Your task to perform on an android device: turn notification dots on Image 0: 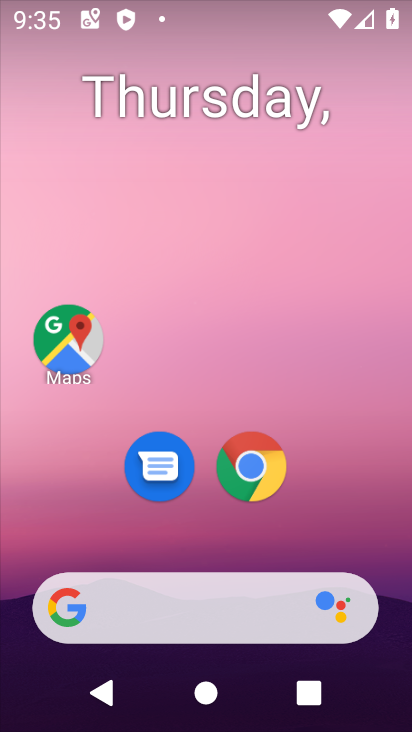
Step 0: drag from (378, 514) to (350, 75)
Your task to perform on an android device: turn notification dots on Image 1: 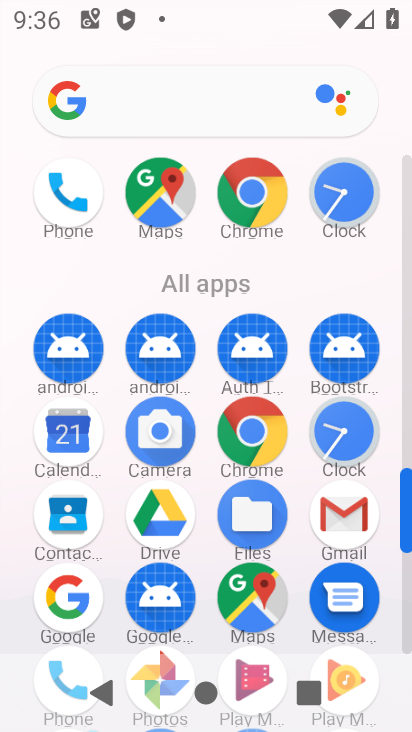
Step 1: drag from (302, 466) to (301, 266)
Your task to perform on an android device: turn notification dots on Image 2: 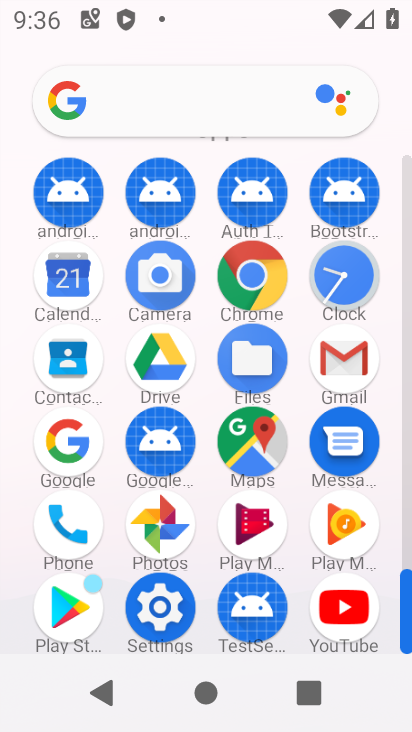
Step 2: click (158, 612)
Your task to perform on an android device: turn notification dots on Image 3: 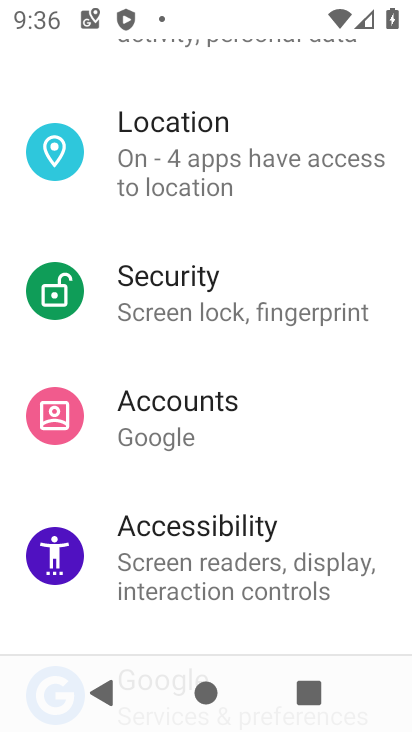
Step 3: drag from (289, 213) to (311, 514)
Your task to perform on an android device: turn notification dots on Image 4: 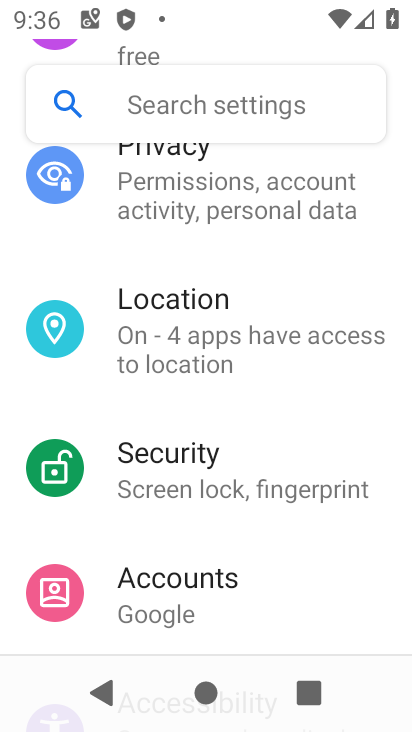
Step 4: drag from (312, 250) to (337, 571)
Your task to perform on an android device: turn notification dots on Image 5: 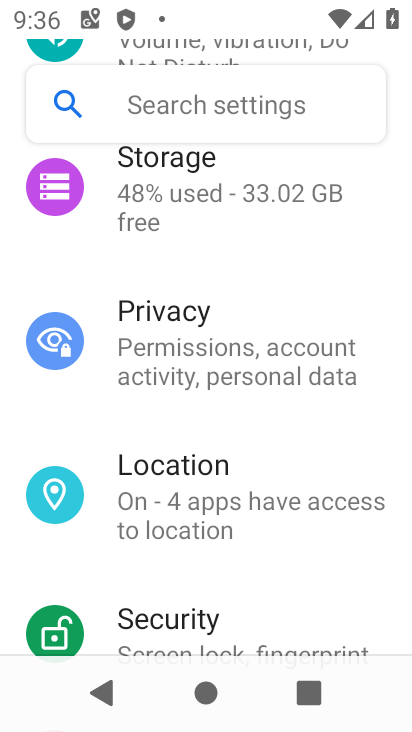
Step 5: drag from (296, 274) to (275, 597)
Your task to perform on an android device: turn notification dots on Image 6: 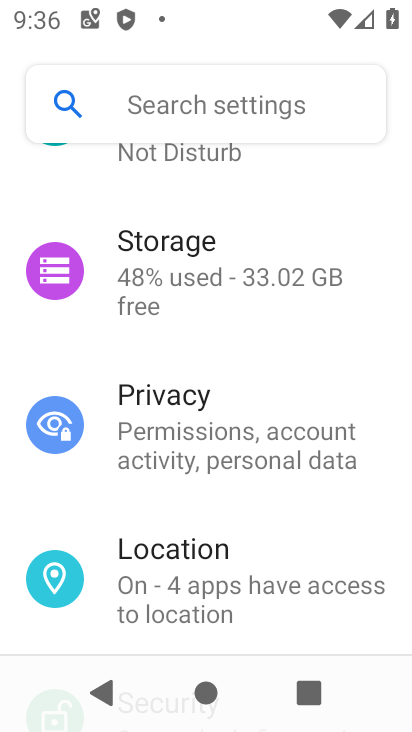
Step 6: drag from (277, 179) to (295, 493)
Your task to perform on an android device: turn notification dots on Image 7: 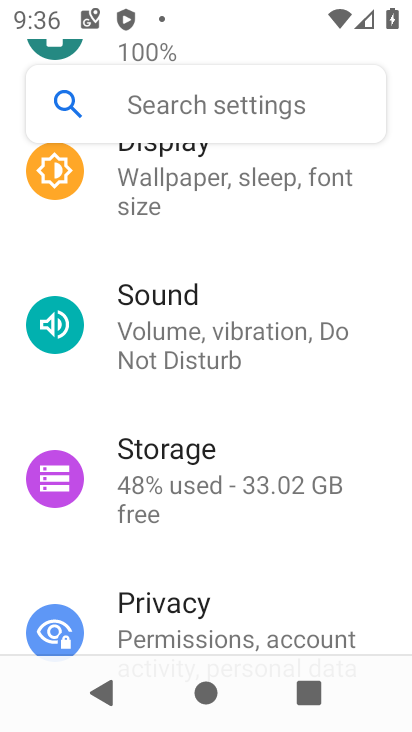
Step 7: drag from (272, 300) to (299, 575)
Your task to perform on an android device: turn notification dots on Image 8: 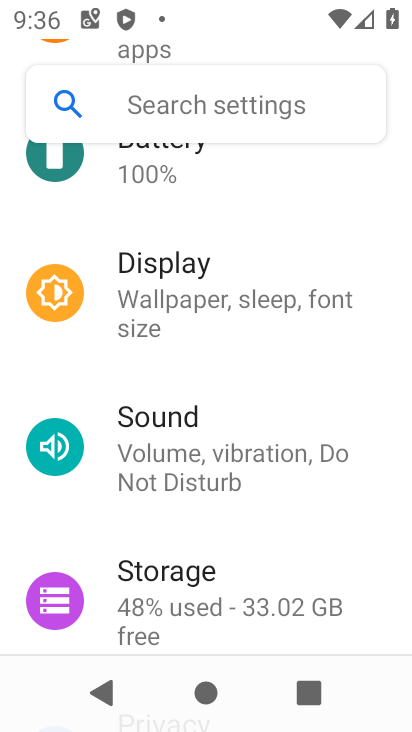
Step 8: drag from (267, 248) to (281, 547)
Your task to perform on an android device: turn notification dots on Image 9: 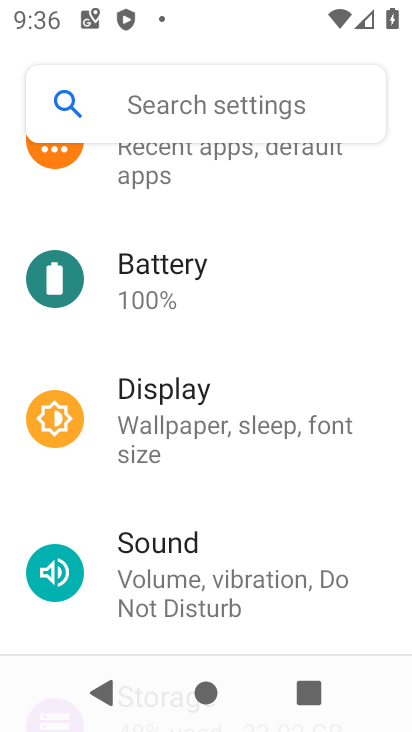
Step 9: drag from (265, 289) to (278, 552)
Your task to perform on an android device: turn notification dots on Image 10: 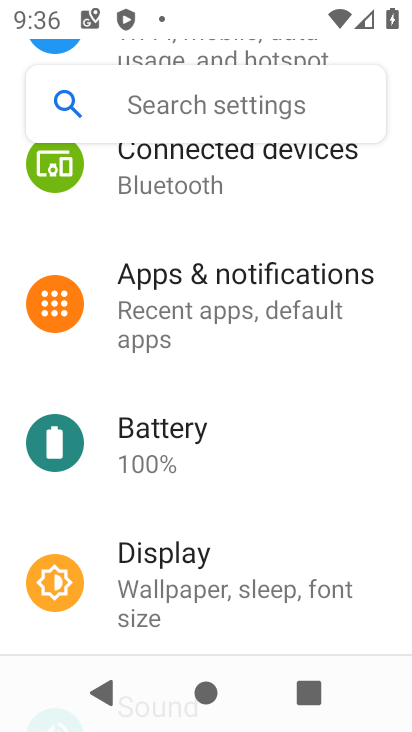
Step 10: click (247, 292)
Your task to perform on an android device: turn notification dots on Image 11: 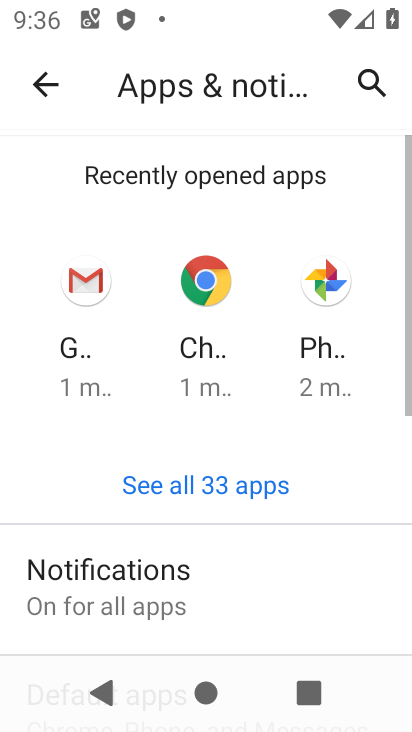
Step 11: drag from (258, 601) to (267, 222)
Your task to perform on an android device: turn notification dots on Image 12: 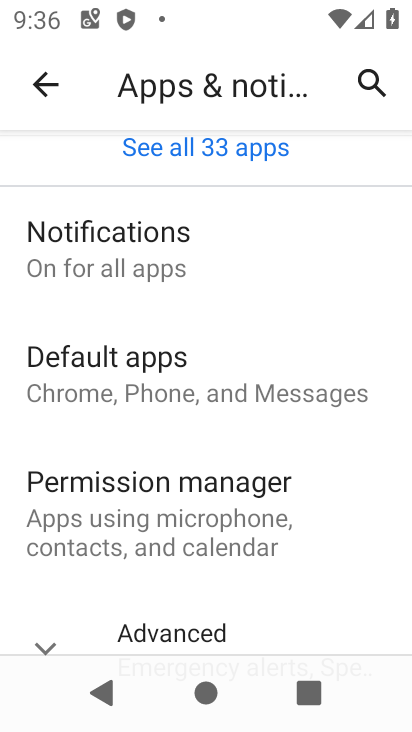
Step 12: click (88, 248)
Your task to perform on an android device: turn notification dots on Image 13: 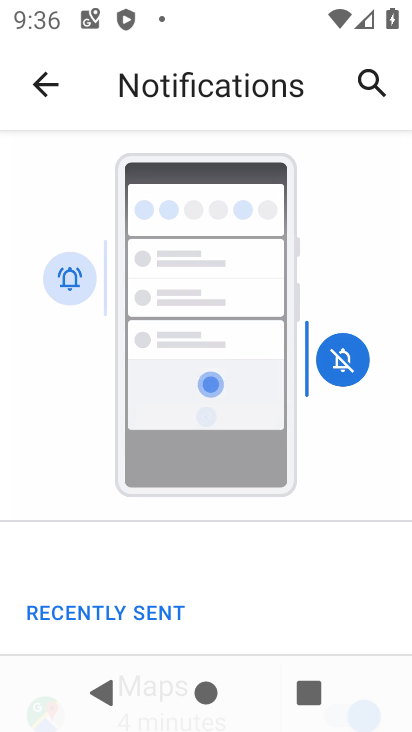
Step 13: drag from (217, 560) to (382, 131)
Your task to perform on an android device: turn notification dots on Image 14: 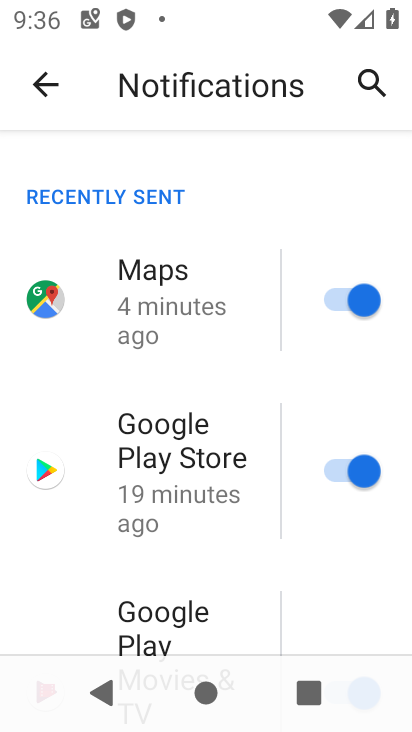
Step 14: drag from (255, 590) to (261, 238)
Your task to perform on an android device: turn notification dots on Image 15: 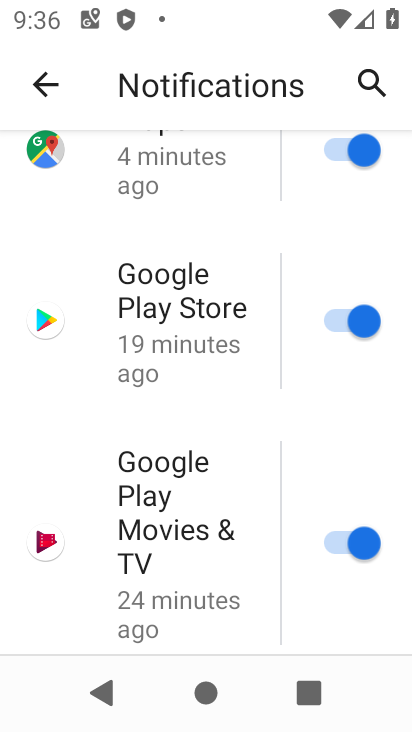
Step 15: drag from (230, 633) to (258, 269)
Your task to perform on an android device: turn notification dots on Image 16: 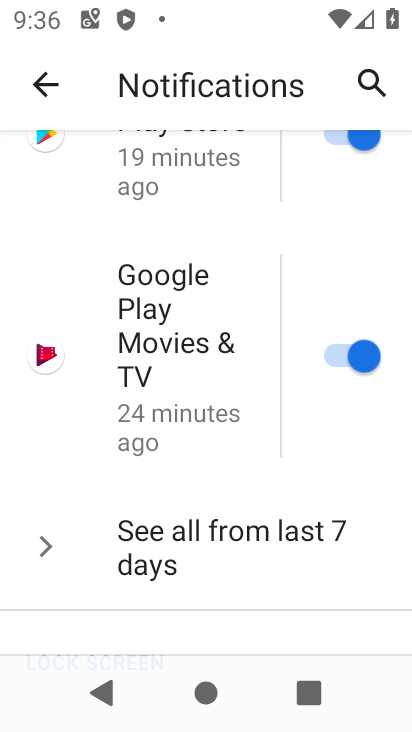
Step 16: drag from (221, 614) to (247, 347)
Your task to perform on an android device: turn notification dots on Image 17: 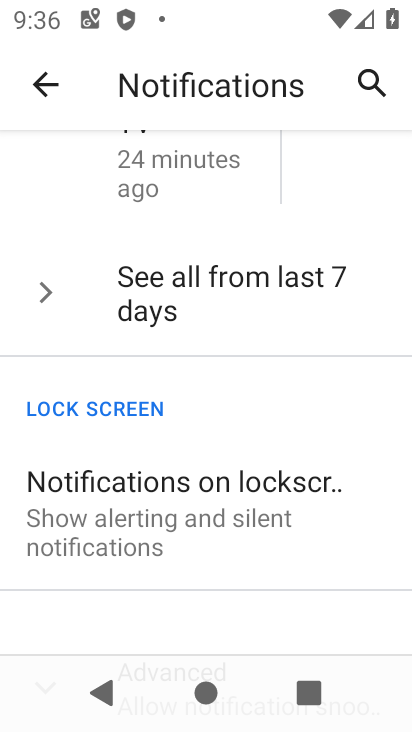
Step 17: drag from (195, 585) to (249, 263)
Your task to perform on an android device: turn notification dots on Image 18: 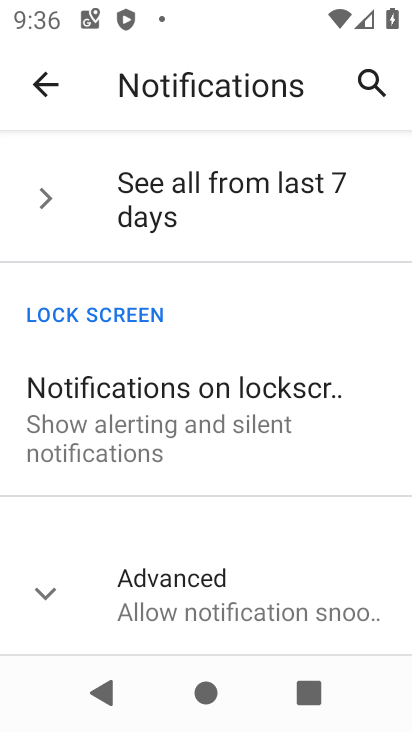
Step 18: click (215, 604)
Your task to perform on an android device: turn notification dots on Image 19: 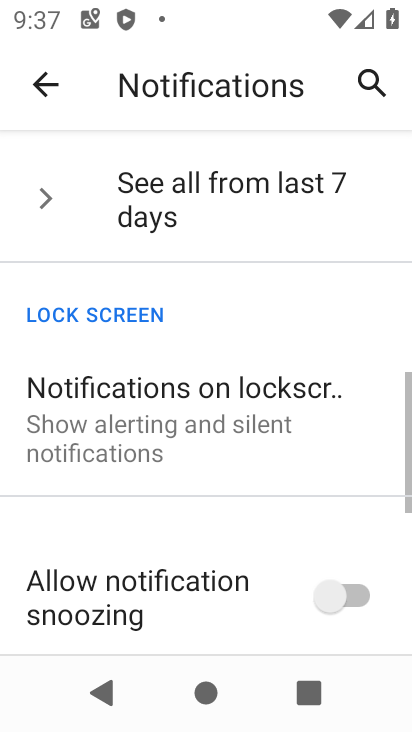
Step 19: task complete